Your task to perform on an android device: clear history in the chrome app Image 0: 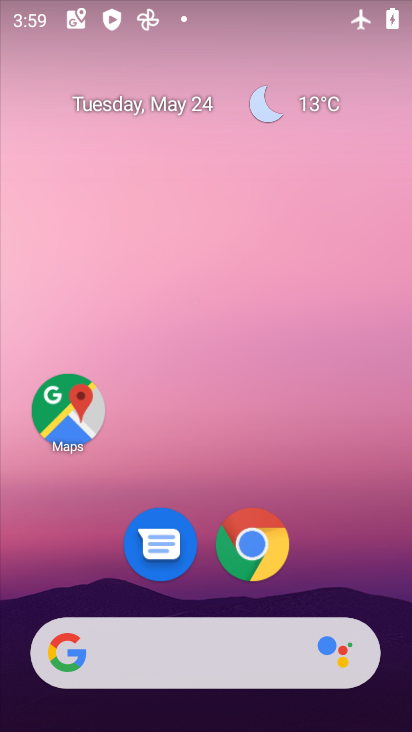
Step 0: drag from (376, 561) to (336, 102)
Your task to perform on an android device: clear history in the chrome app Image 1: 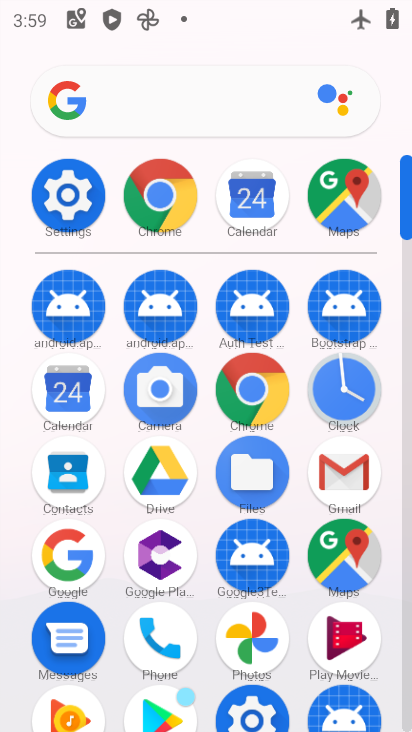
Step 1: click (148, 214)
Your task to perform on an android device: clear history in the chrome app Image 2: 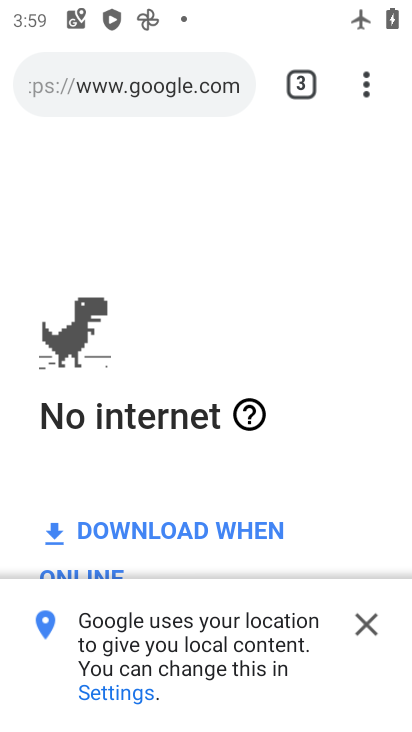
Step 2: task complete